Your task to perform on an android device: Search for Mexican restaurants on Maps Image 0: 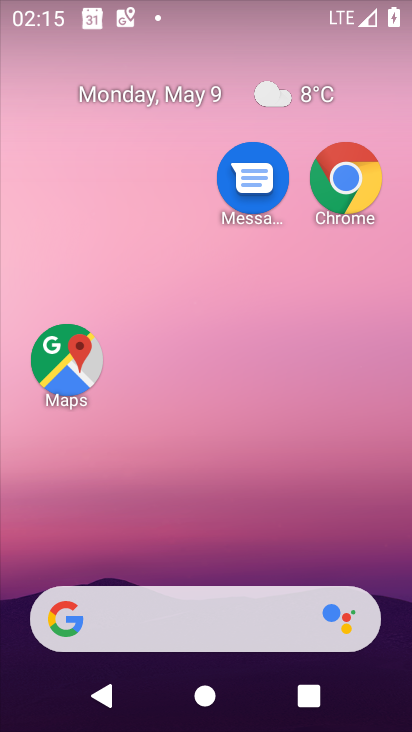
Step 0: click (70, 333)
Your task to perform on an android device: Search for Mexican restaurants on Maps Image 1: 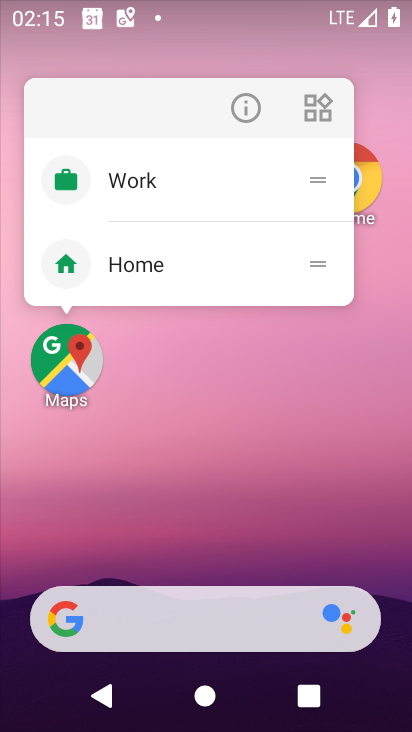
Step 1: click (94, 356)
Your task to perform on an android device: Search for Mexican restaurants on Maps Image 2: 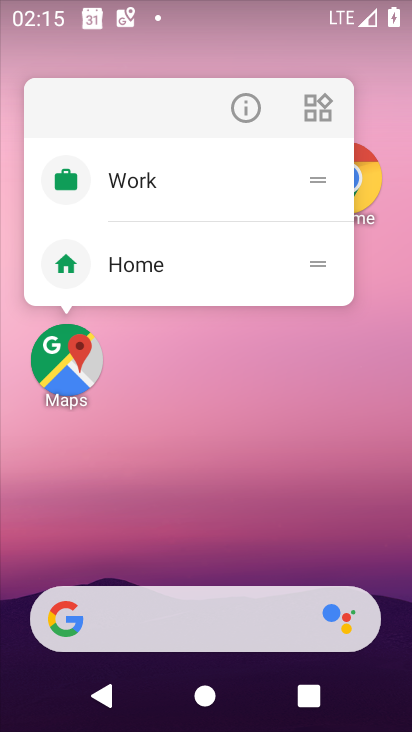
Step 2: click (65, 347)
Your task to perform on an android device: Search for Mexican restaurants on Maps Image 3: 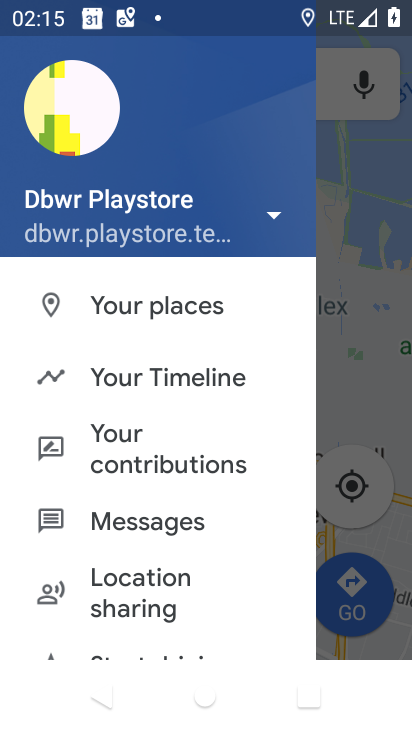
Step 3: click (400, 208)
Your task to perform on an android device: Search for Mexican restaurants on Maps Image 4: 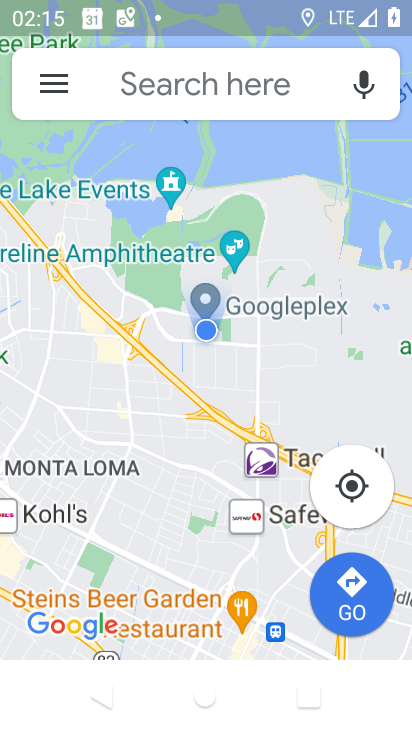
Step 4: click (175, 87)
Your task to perform on an android device: Search for Mexican restaurants on Maps Image 5: 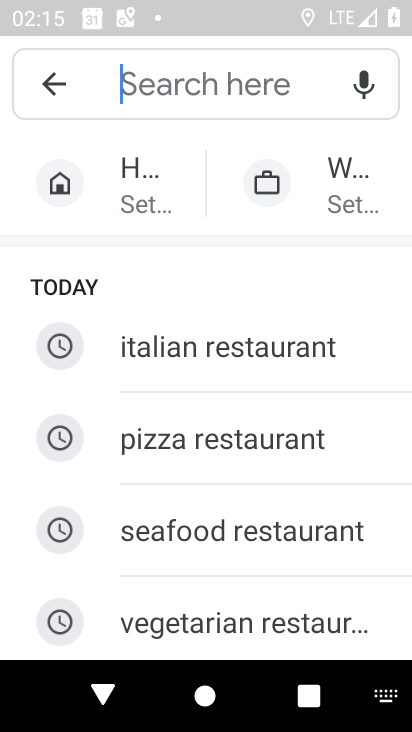
Step 5: type "Mexican restaurant"
Your task to perform on an android device: Search for Mexican restaurants on Maps Image 6: 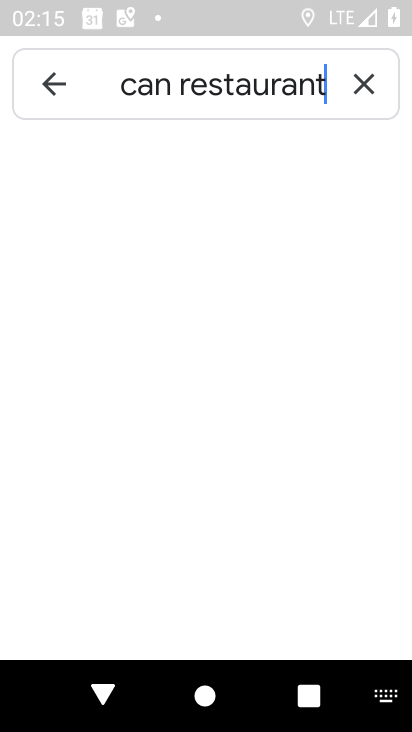
Step 6: type ""
Your task to perform on an android device: Search for Mexican restaurants on Maps Image 7: 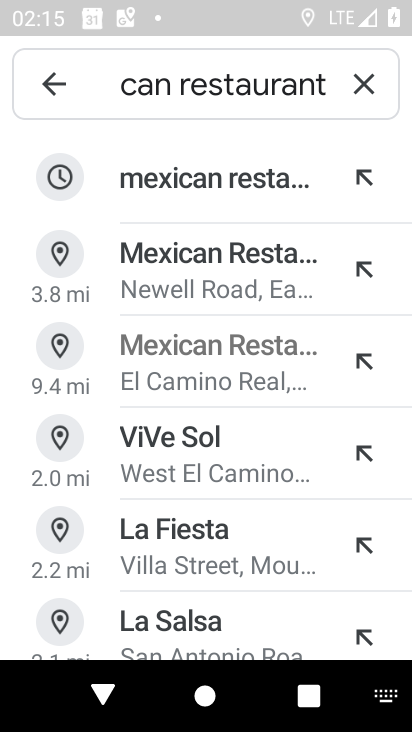
Step 7: click (274, 179)
Your task to perform on an android device: Search for Mexican restaurants on Maps Image 8: 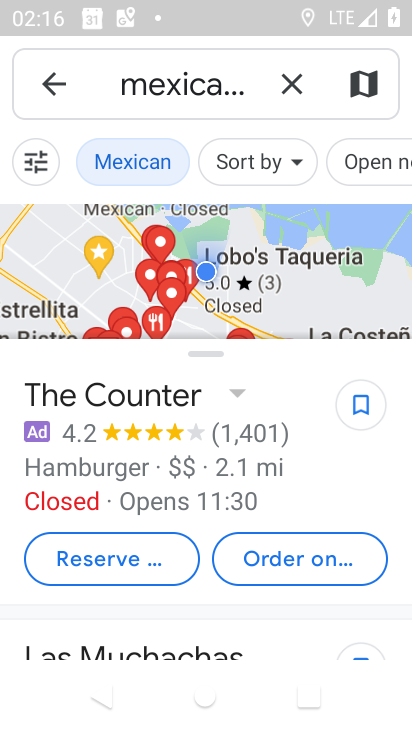
Step 8: task complete